Your task to perform on an android device: turn vacation reply on in the gmail app Image 0: 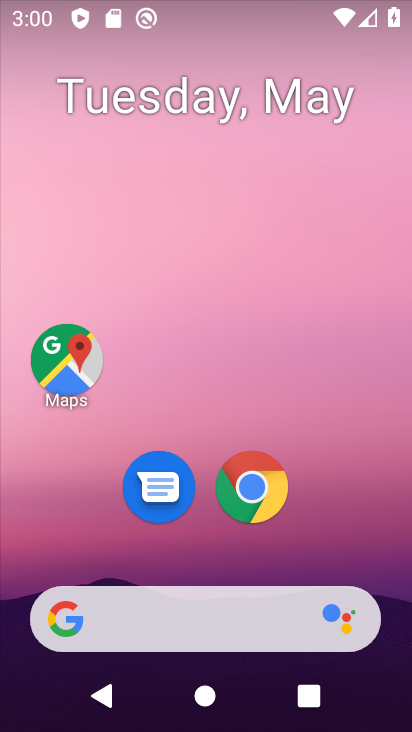
Step 0: drag from (175, 576) to (97, 22)
Your task to perform on an android device: turn vacation reply on in the gmail app Image 1: 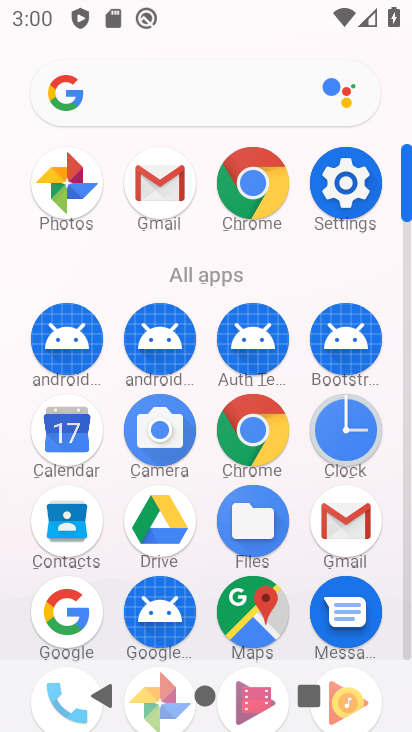
Step 1: click (331, 502)
Your task to perform on an android device: turn vacation reply on in the gmail app Image 2: 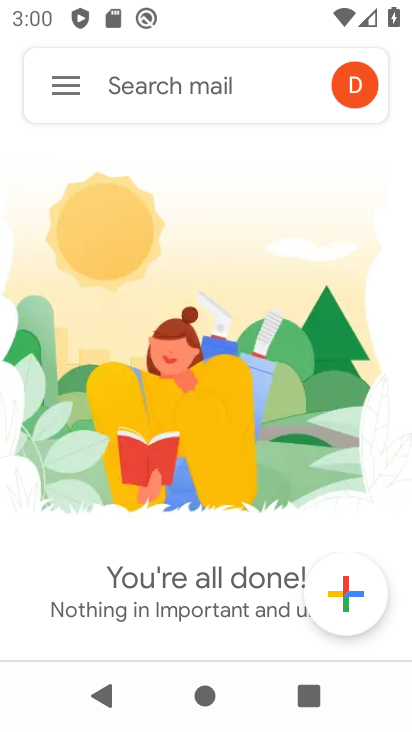
Step 2: click (53, 87)
Your task to perform on an android device: turn vacation reply on in the gmail app Image 3: 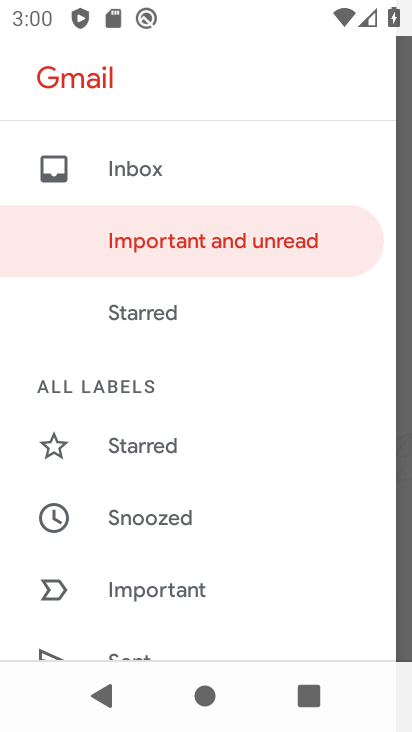
Step 3: drag from (226, 547) to (195, 105)
Your task to perform on an android device: turn vacation reply on in the gmail app Image 4: 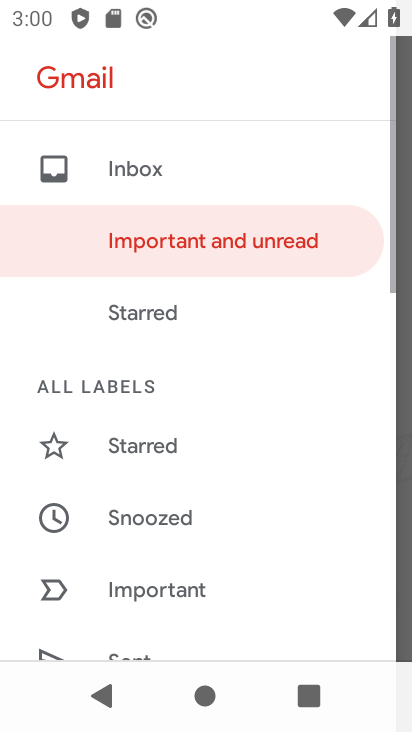
Step 4: drag from (119, 505) to (114, 94)
Your task to perform on an android device: turn vacation reply on in the gmail app Image 5: 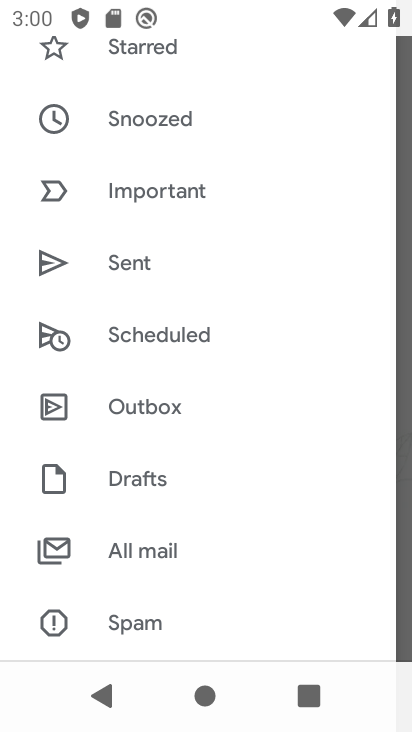
Step 5: drag from (187, 531) to (180, 222)
Your task to perform on an android device: turn vacation reply on in the gmail app Image 6: 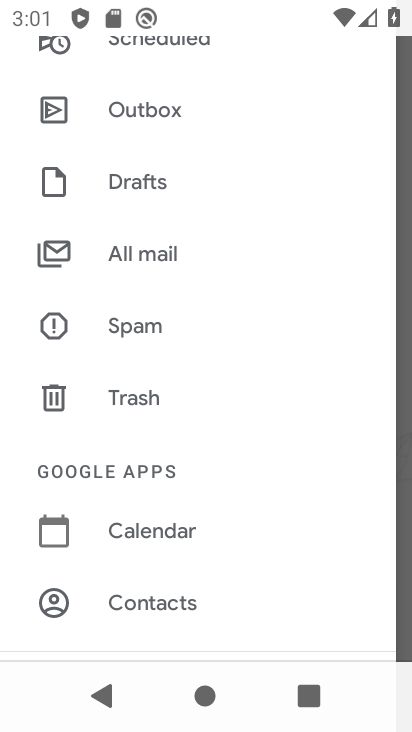
Step 6: drag from (192, 529) to (140, 145)
Your task to perform on an android device: turn vacation reply on in the gmail app Image 7: 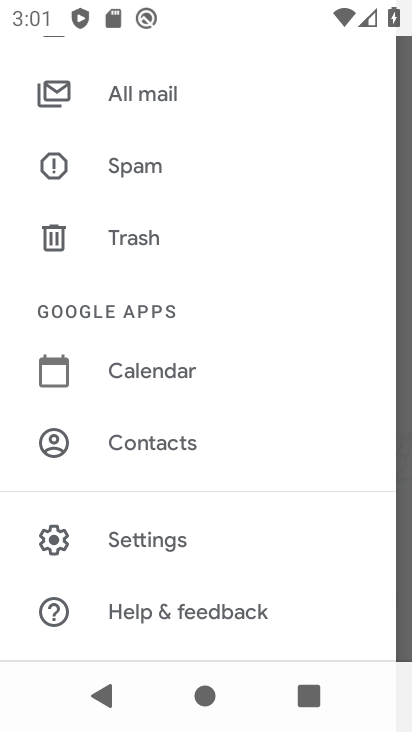
Step 7: click (143, 535)
Your task to perform on an android device: turn vacation reply on in the gmail app Image 8: 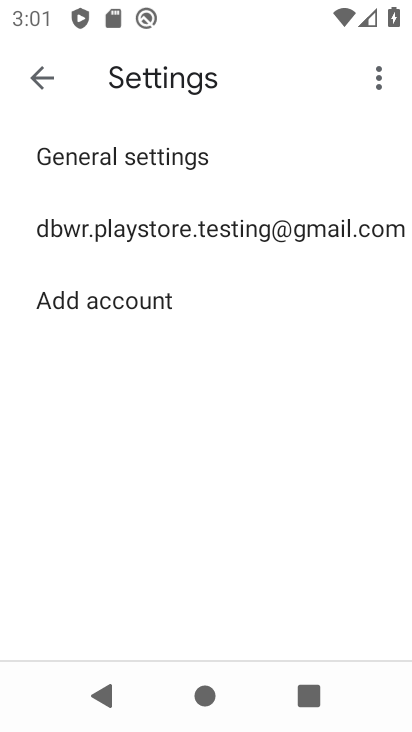
Step 8: click (126, 234)
Your task to perform on an android device: turn vacation reply on in the gmail app Image 9: 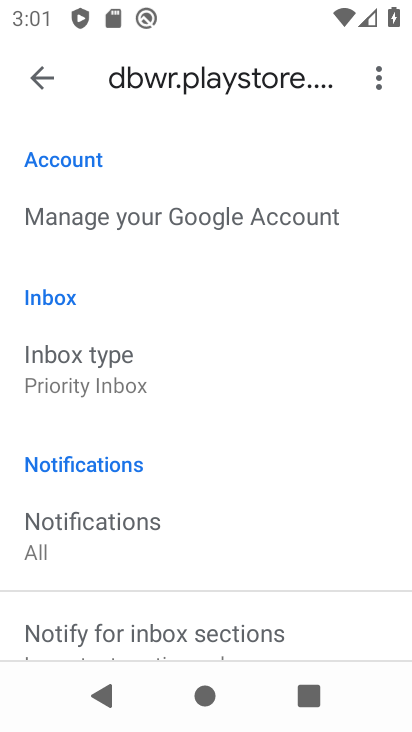
Step 9: drag from (204, 559) to (160, 140)
Your task to perform on an android device: turn vacation reply on in the gmail app Image 10: 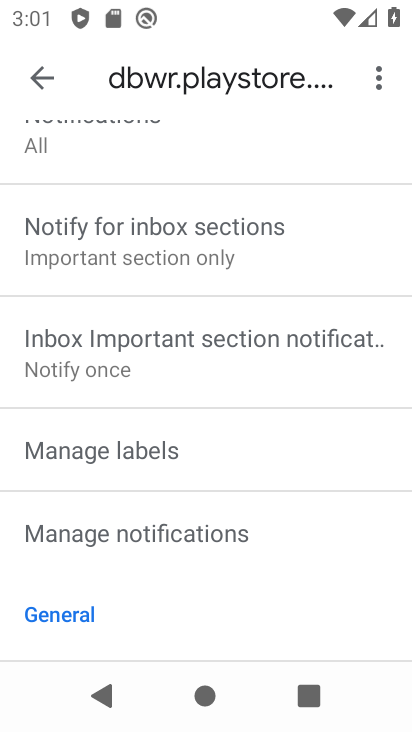
Step 10: drag from (203, 579) to (194, 113)
Your task to perform on an android device: turn vacation reply on in the gmail app Image 11: 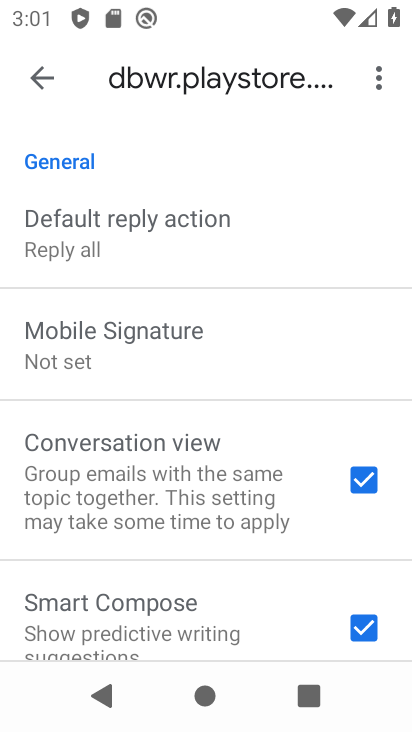
Step 11: drag from (204, 574) to (185, 156)
Your task to perform on an android device: turn vacation reply on in the gmail app Image 12: 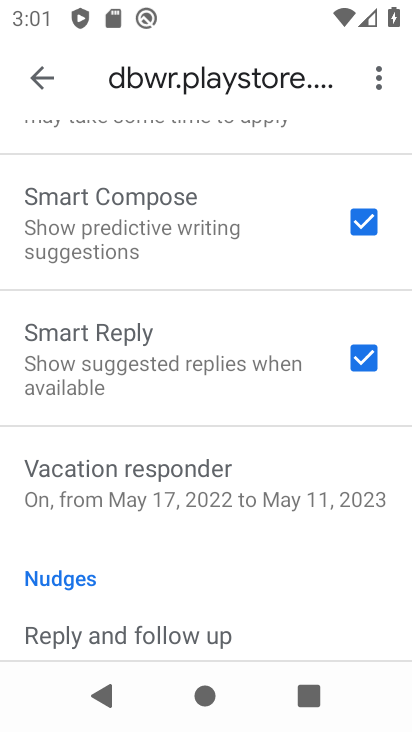
Step 12: click (238, 492)
Your task to perform on an android device: turn vacation reply on in the gmail app Image 13: 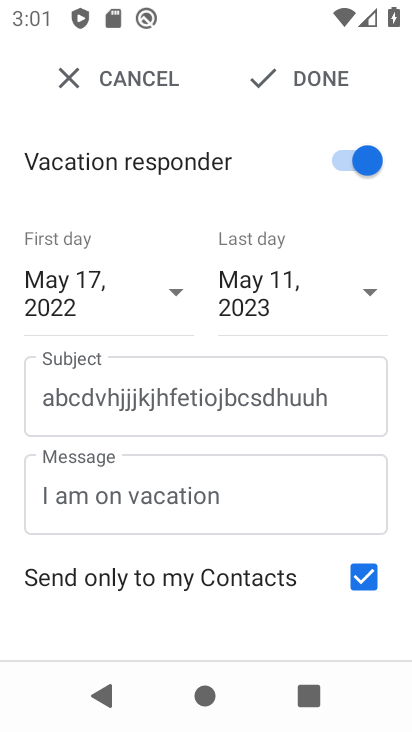
Step 13: click (320, 73)
Your task to perform on an android device: turn vacation reply on in the gmail app Image 14: 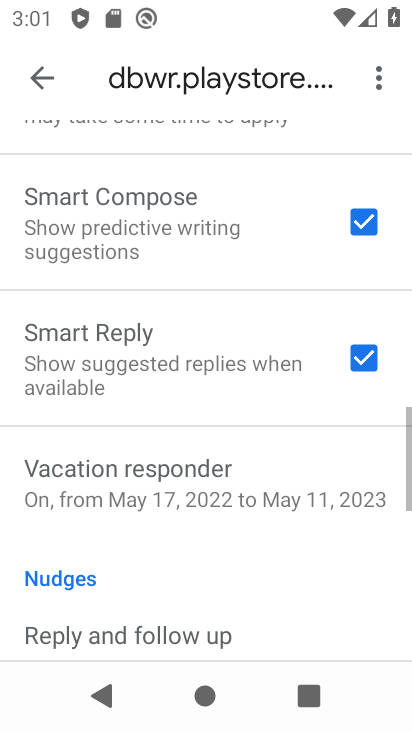
Step 14: task complete